Your task to perform on an android device: Search for a new desk on IKEA Image 0: 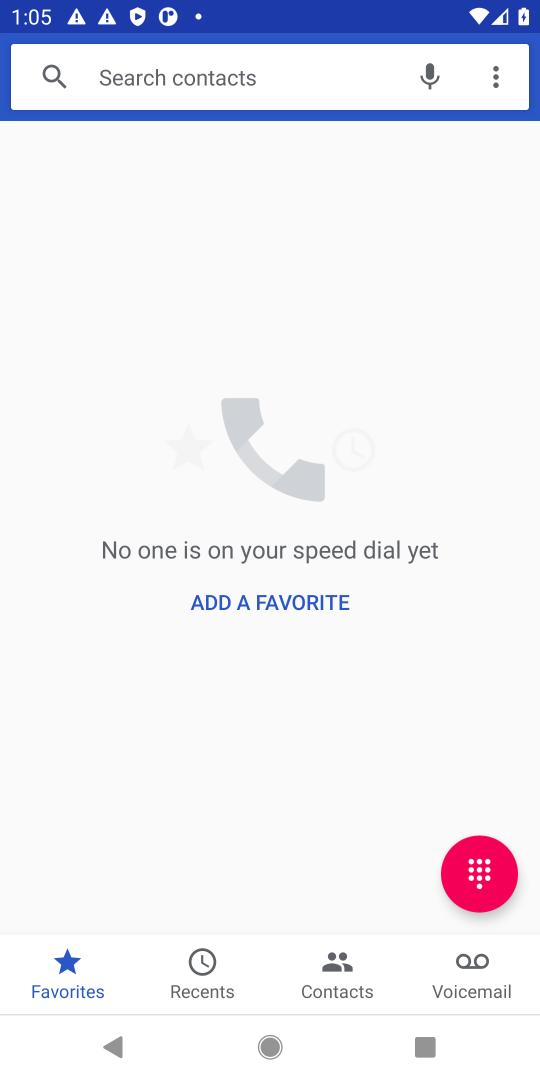
Step 0: press home button
Your task to perform on an android device: Search for a new desk on IKEA Image 1: 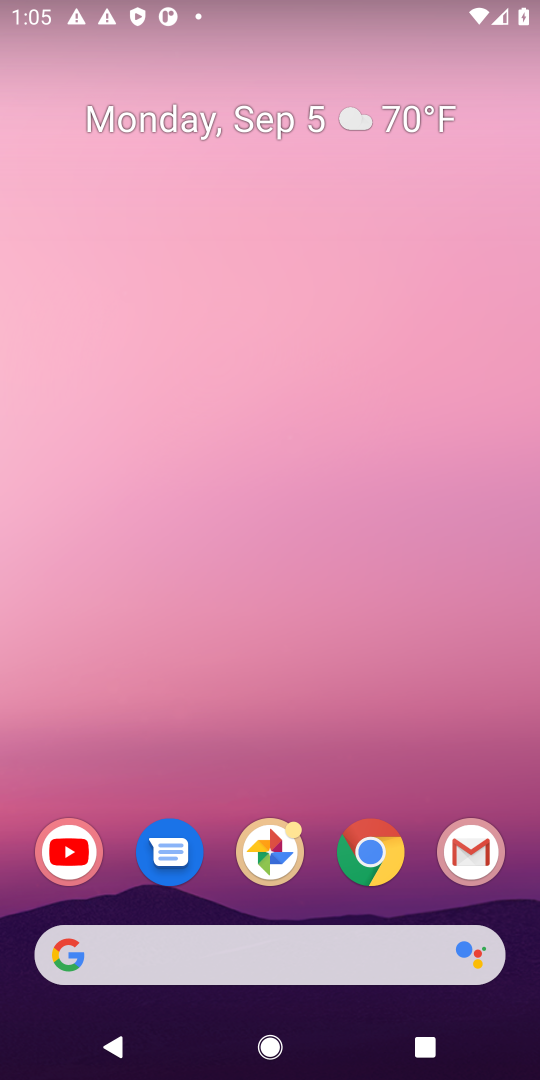
Step 1: click (367, 850)
Your task to perform on an android device: Search for a new desk on IKEA Image 2: 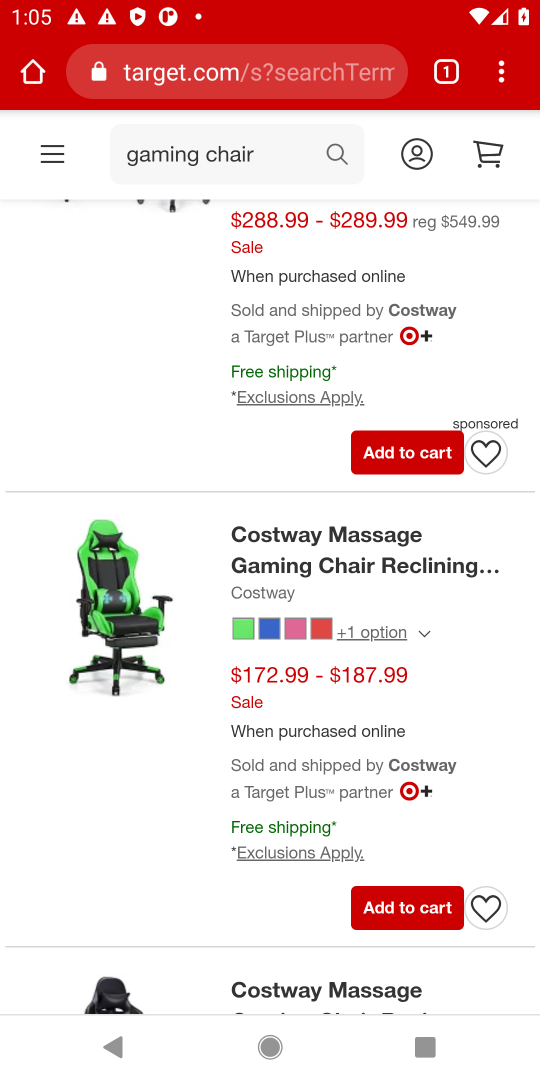
Step 2: click (352, 52)
Your task to perform on an android device: Search for a new desk on IKEA Image 3: 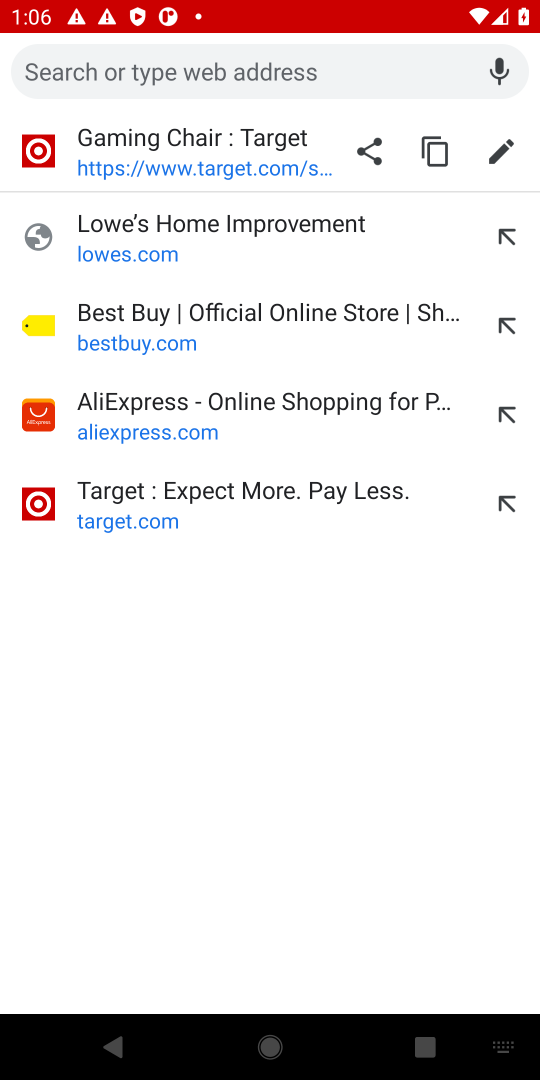
Step 3: type "IKEA"
Your task to perform on an android device: Search for a new desk on IKEA Image 4: 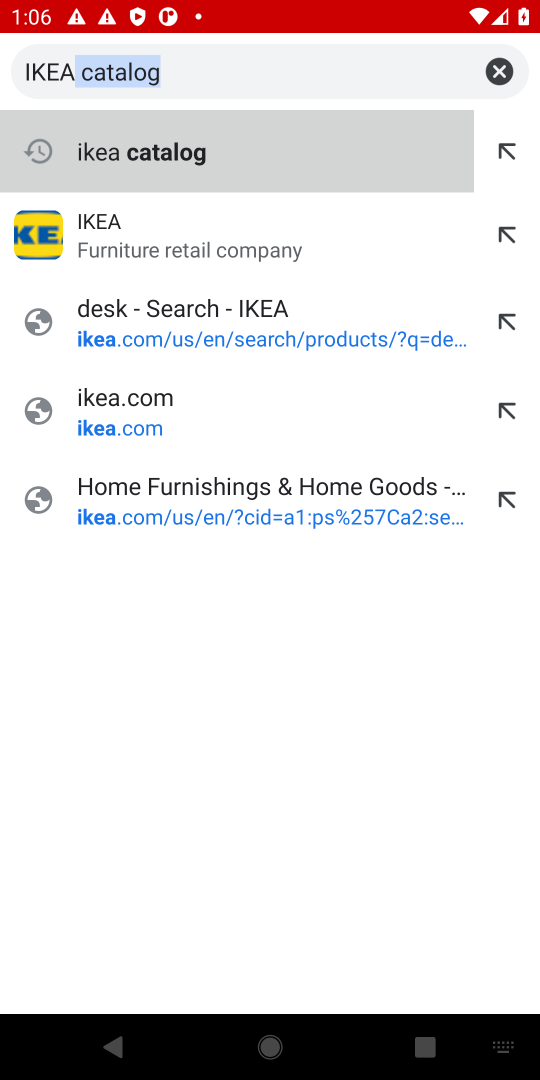
Step 4: click (102, 227)
Your task to perform on an android device: Search for a new desk on IKEA Image 5: 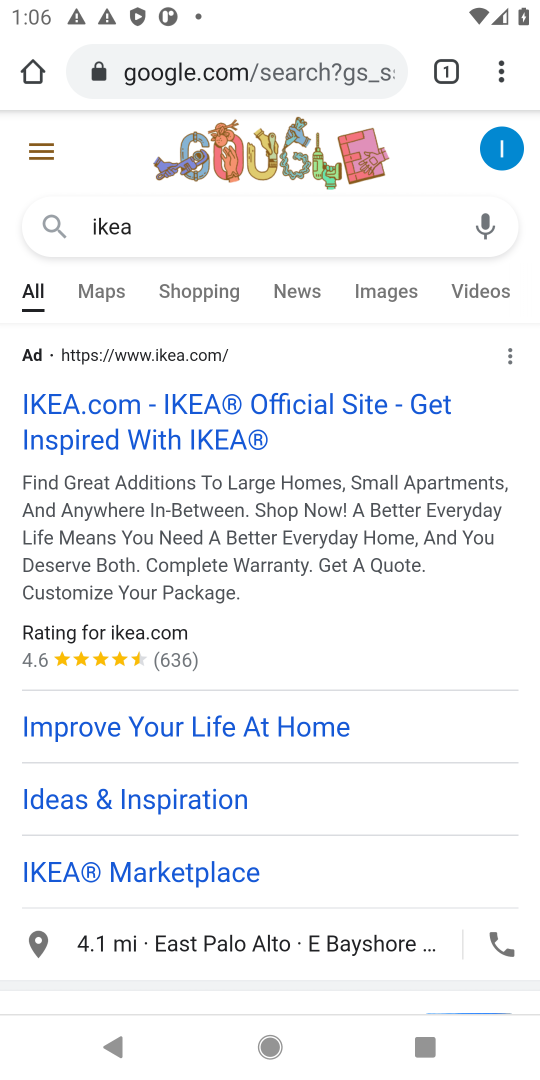
Step 5: click (62, 423)
Your task to perform on an android device: Search for a new desk on IKEA Image 6: 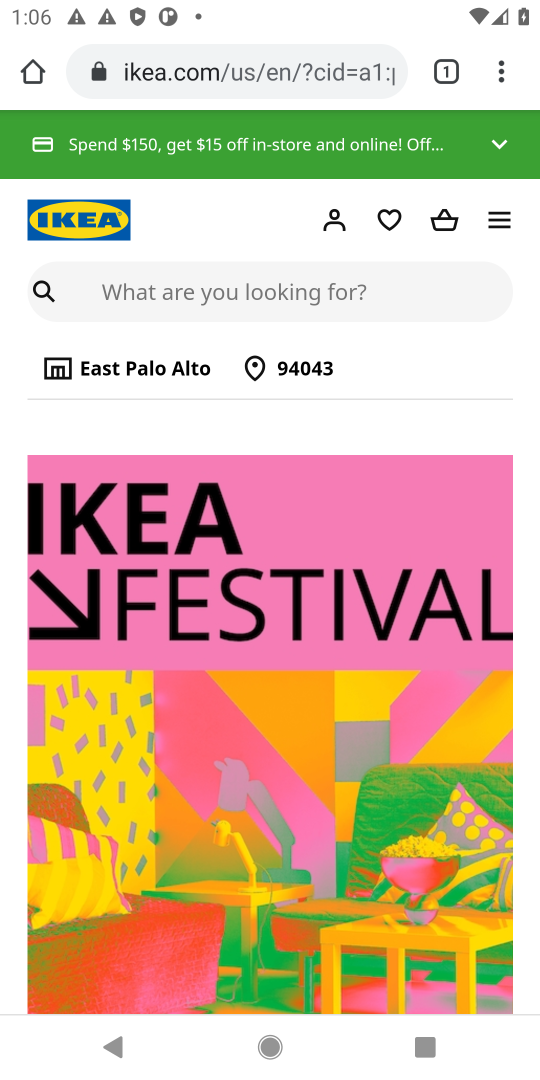
Step 6: click (208, 285)
Your task to perform on an android device: Search for a new desk on IKEA Image 7: 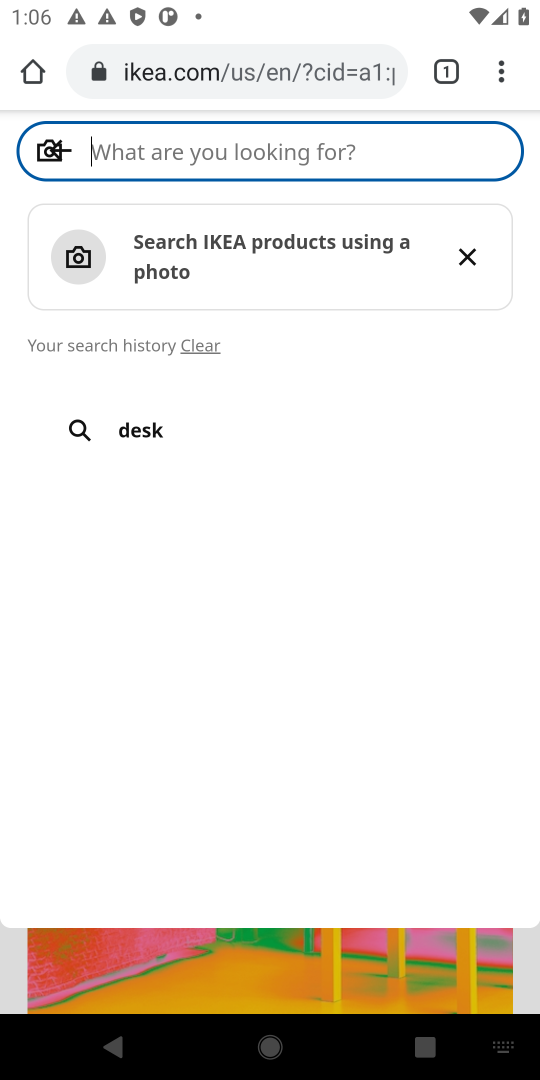
Step 7: type "desk"
Your task to perform on an android device: Search for a new desk on IKEA Image 8: 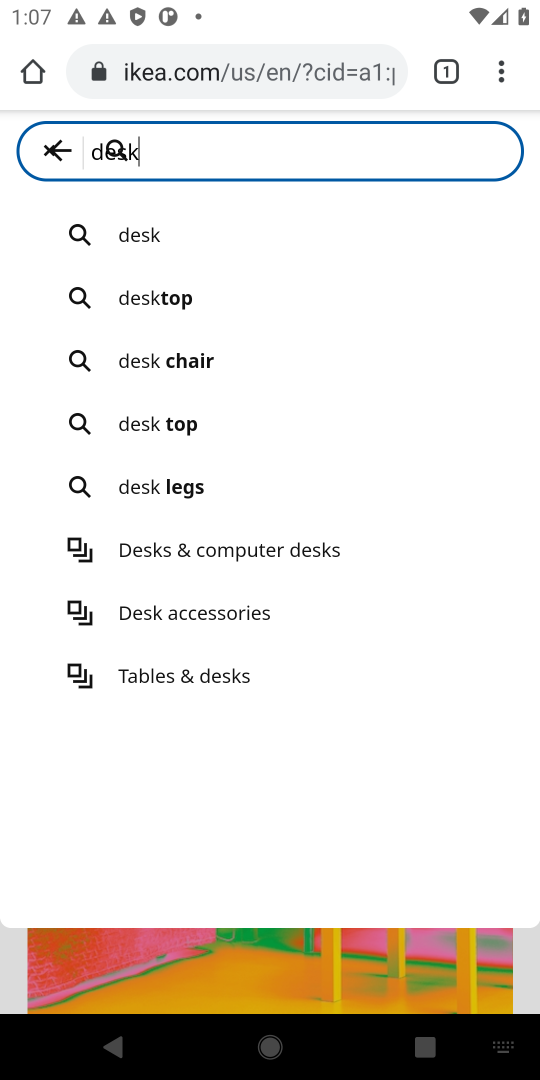
Step 8: click (143, 234)
Your task to perform on an android device: Search for a new desk on IKEA Image 9: 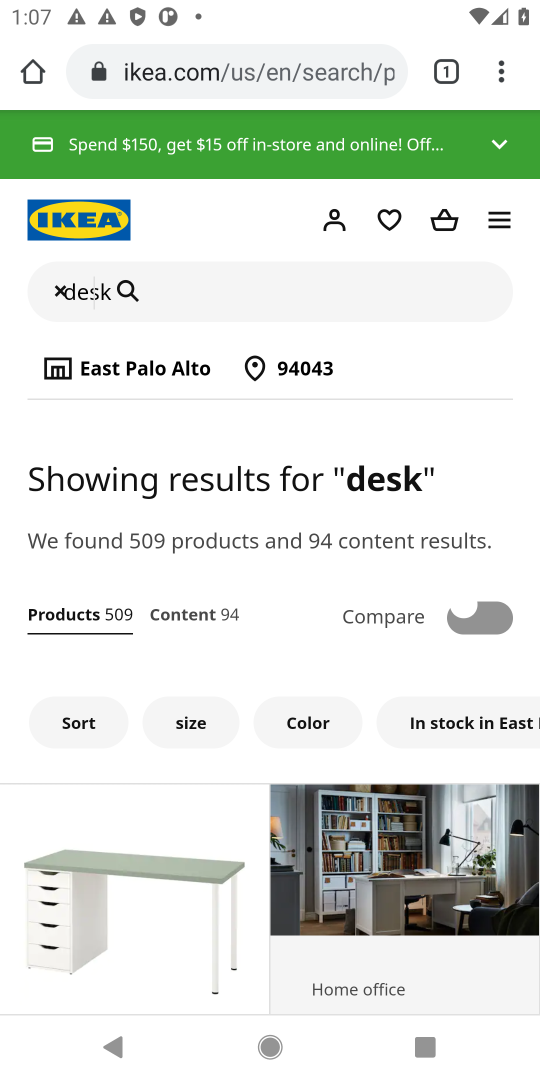
Step 9: task complete